Your task to perform on an android device: Play the last video I watched on Youtube Image 0: 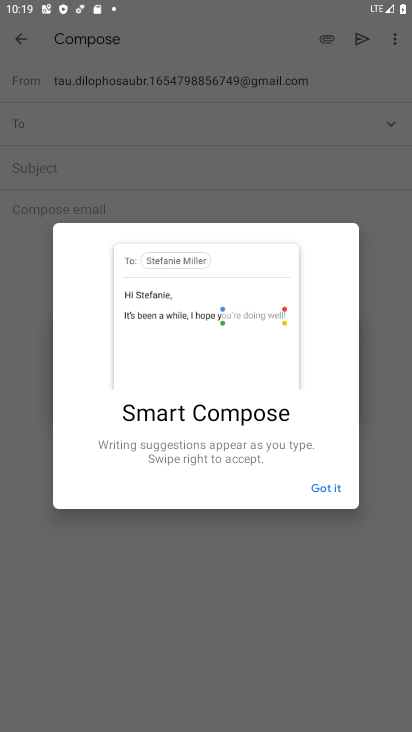
Step 0: press home button
Your task to perform on an android device: Play the last video I watched on Youtube Image 1: 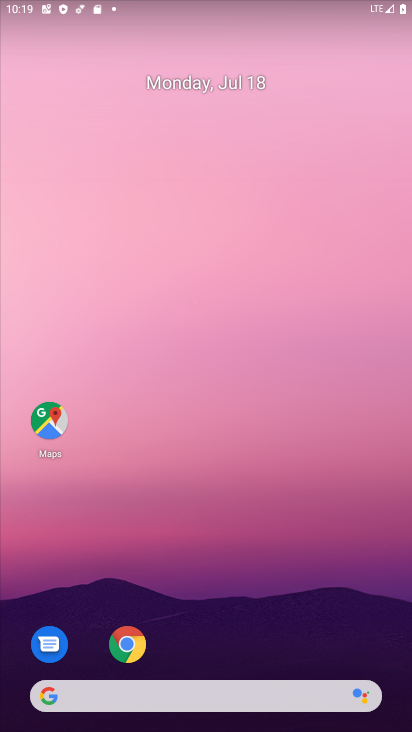
Step 1: drag from (324, 607) to (344, 267)
Your task to perform on an android device: Play the last video I watched on Youtube Image 2: 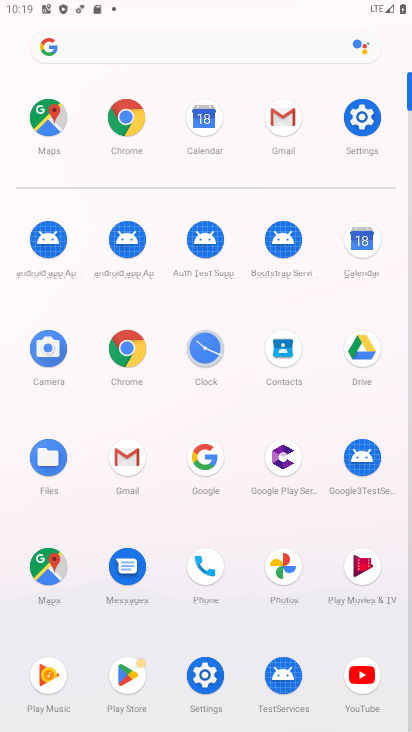
Step 2: click (365, 676)
Your task to perform on an android device: Play the last video I watched on Youtube Image 3: 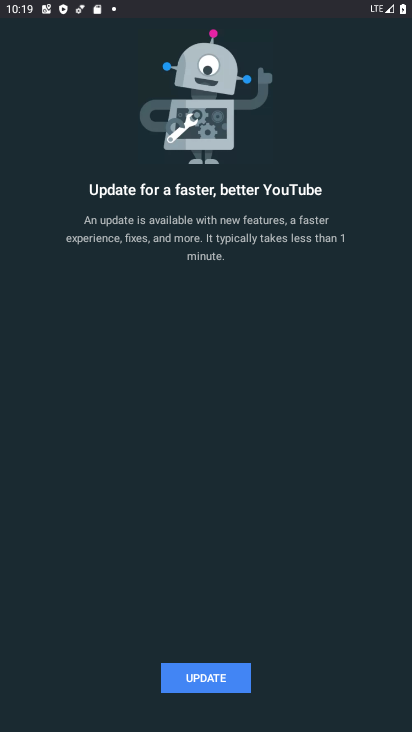
Step 3: click (232, 680)
Your task to perform on an android device: Play the last video I watched on Youtube Image 4: 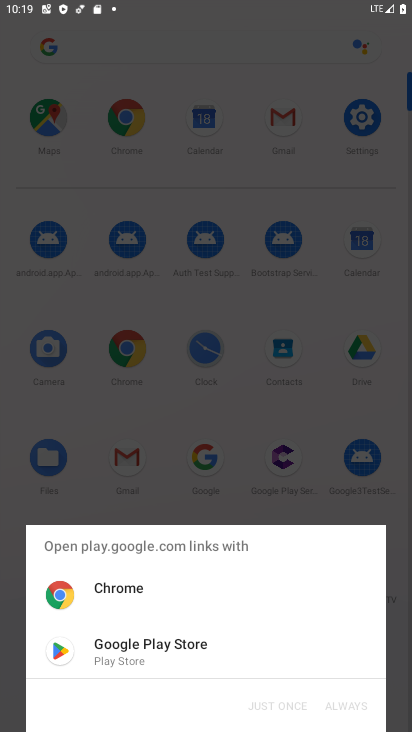
Step 4: click (151, 648)
Your task to perform on an android device: Play the last video I watched on Youtube Image 5: 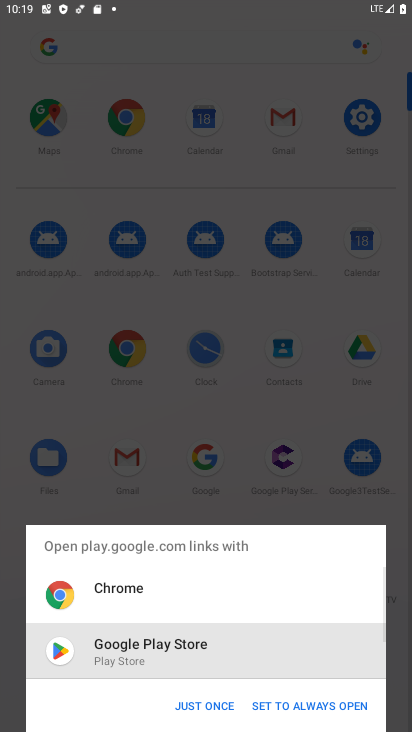
Step 5: click (208, 706)
Your task to perform on an android device: Play the last video I watched on Youtube Image 6: 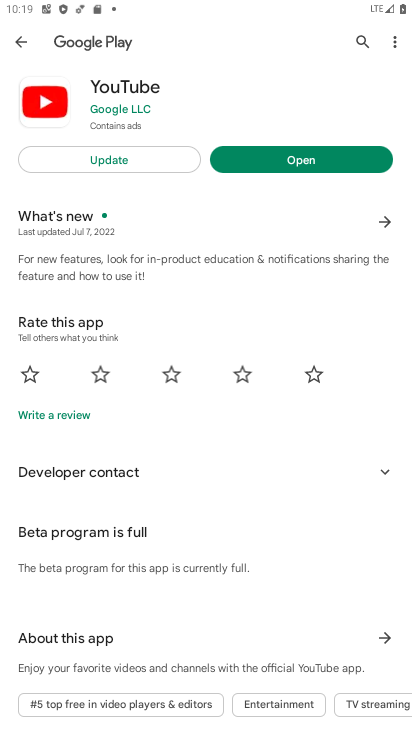
Step 6: click (127, 162)
Your task to perform on an android device: Play the last video I watched on Youtube Image 7: 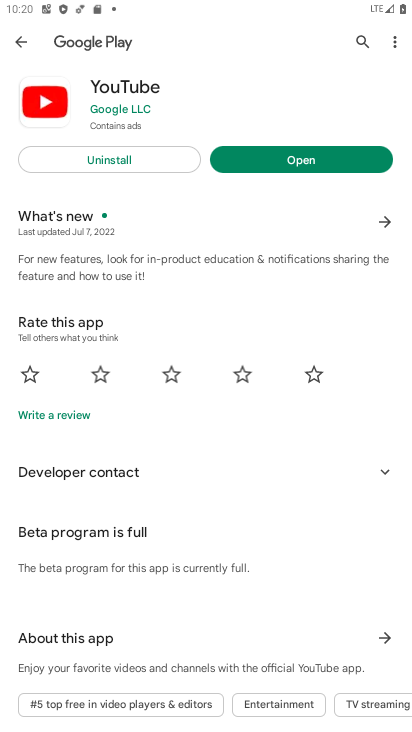
Step 7: click (311, 168)
Your task to perform on an android device: Play the last video I watched on Youtube Image 8: 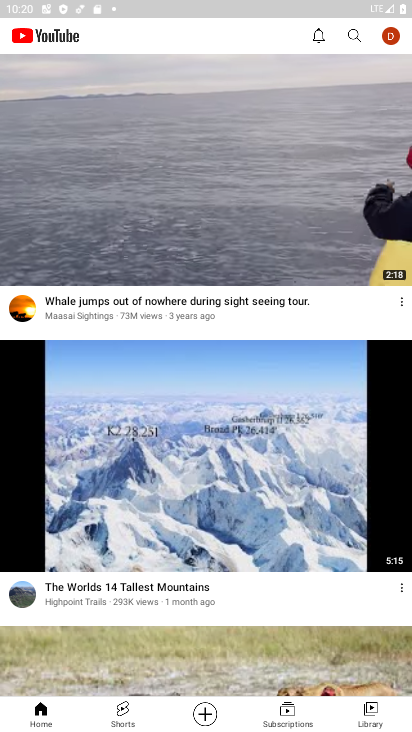
Step 8: click (371, 712)
Your task to perform on an android device: Play the last video I watched on Youtube Image 9: 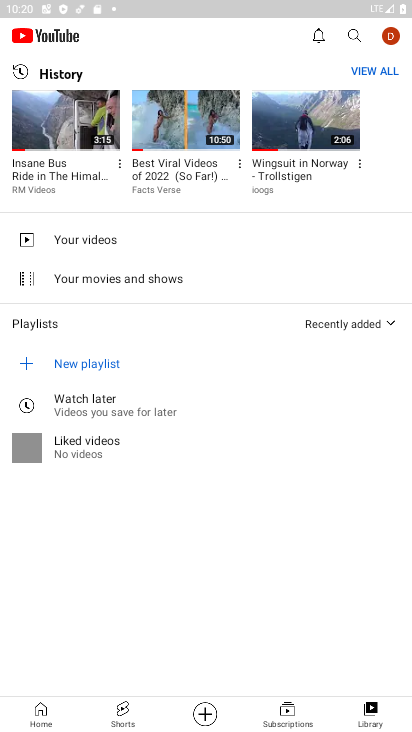
Step 9: click (65, 122)
Your task to perform on an android device: Play the last video I watched on Youtube Image 10: 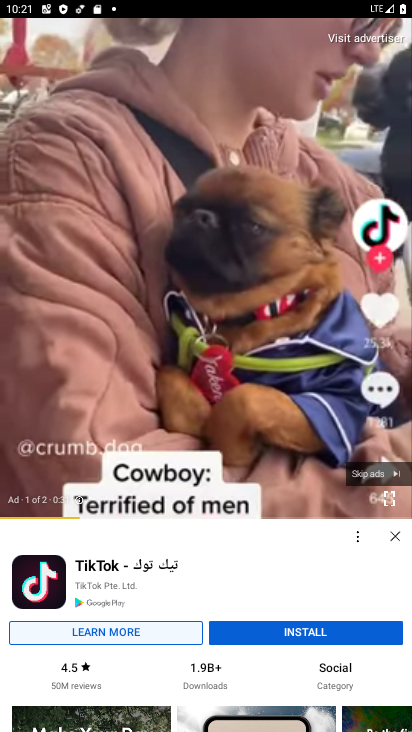
Step 10: task complete